Your task to perform on an android device: Go to Android settings Image 0: 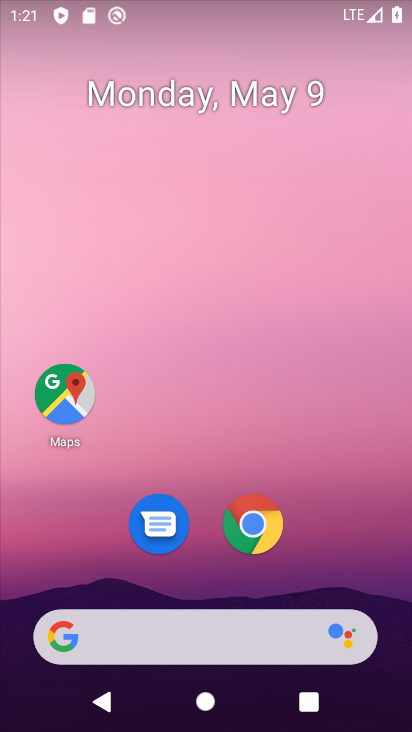
Step 0: drag from (196, 551) to (173, 65)
Your task to perform on an android device: Go to Android settings Image 1: 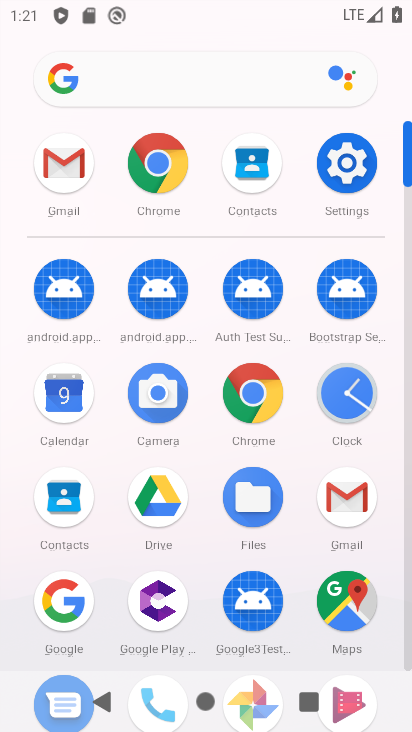
Step 1: click (349, 159)
Your task to perform on an android device: Go to Android settings Image 2: 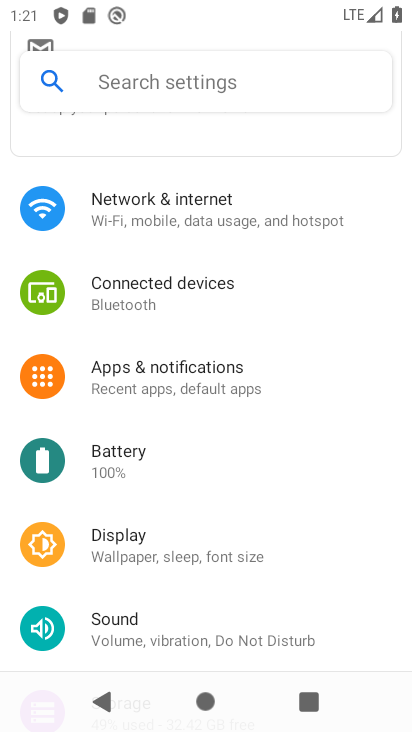
Step 2: drag from (228, 602) to (175, 120)
Your task to perform on an android device: Go to Android settings Image 3: 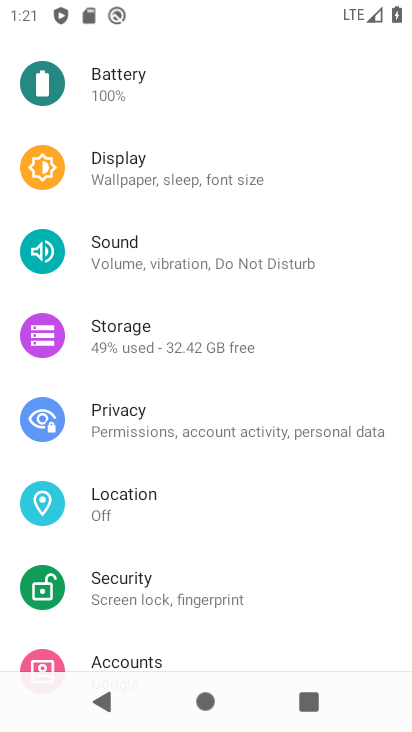
Step 3: drag from (215, 572) to (211, 48)
Your task to perform on an android device: Go to Android settings Image 4: 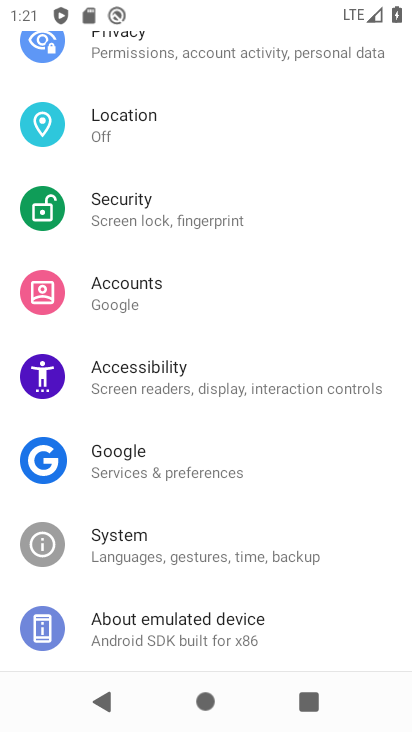
Step 4: click (221, 633)
Your task to perform on an android device: Go to Android settings Image 5: 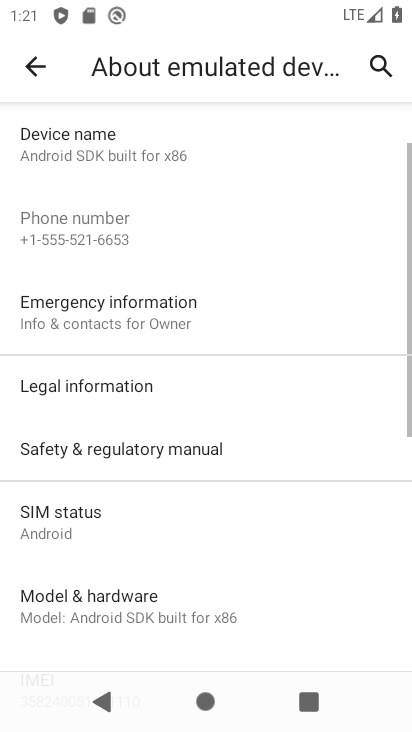
Step 5: task complete